Your task to perform on an android device: change notifications settings Image 0: 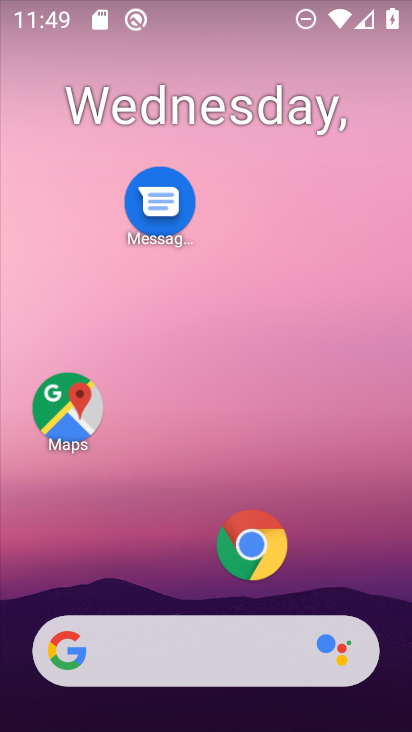
Step 0: drag from (191, 569) to (206, 178)
Your task to perform on an android device: change notifications settings Image 1: 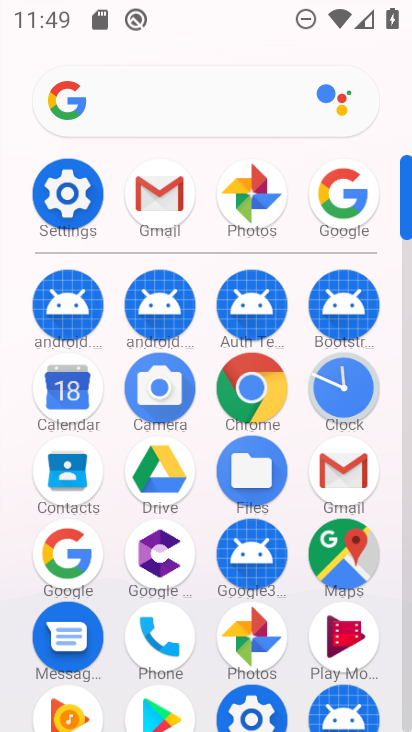
Step 1: click (61, 166)
Your task to perform on an android device: change notifications settings Image 2: 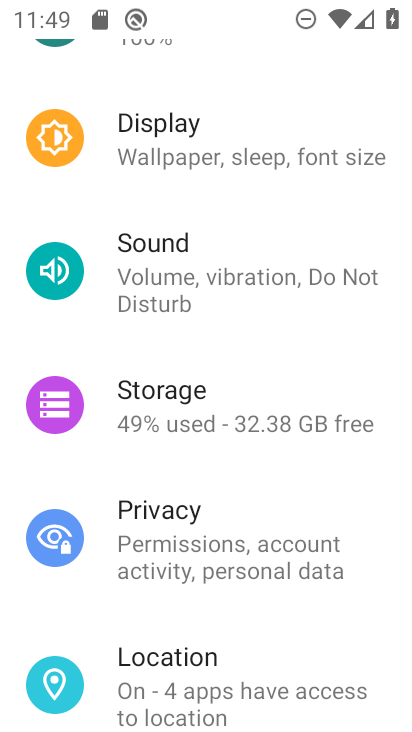
Step 2: drag from (211, 223) to (252, 481)
Your task to perform on an android device: change notifications settings Image 3: 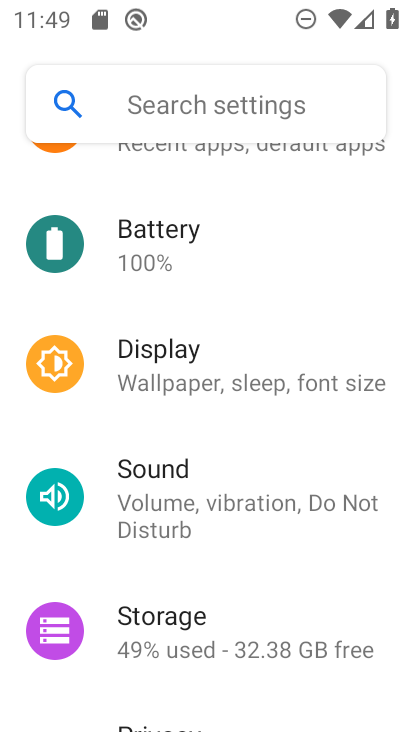
Step 3: drag from (244, 251) to (280, 493)
Your task to perform on an android device: change notifications settings Image 4: 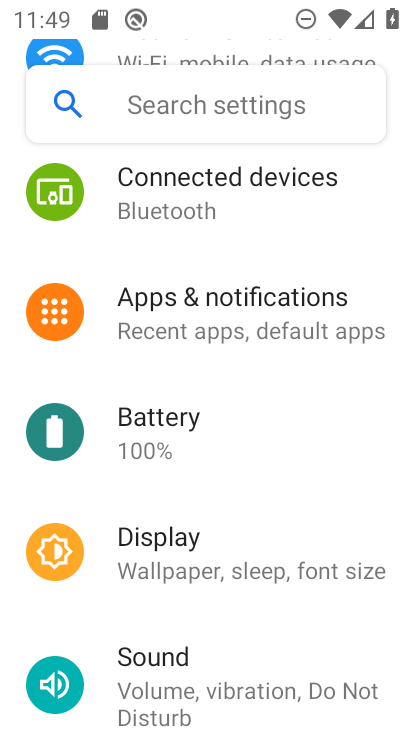
Step 4: click (245, 309)
Your task to perform on an android device: change notifications settings Image 5: 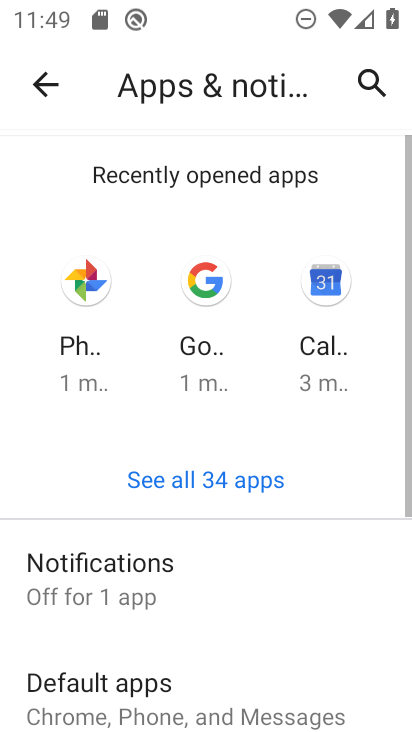
Step 5: click (227, 599)
Your task to perform on an android device: change notifications settings Image 6: 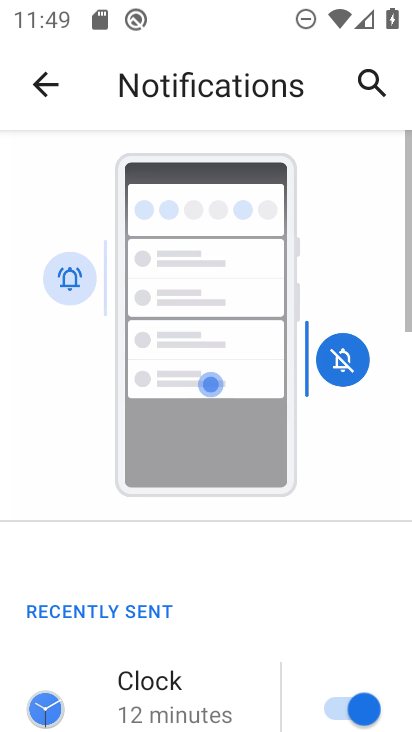
Step 6: task complete